Your task to perform on an android device: Open Youtube and go to "Your channel" Image 0: 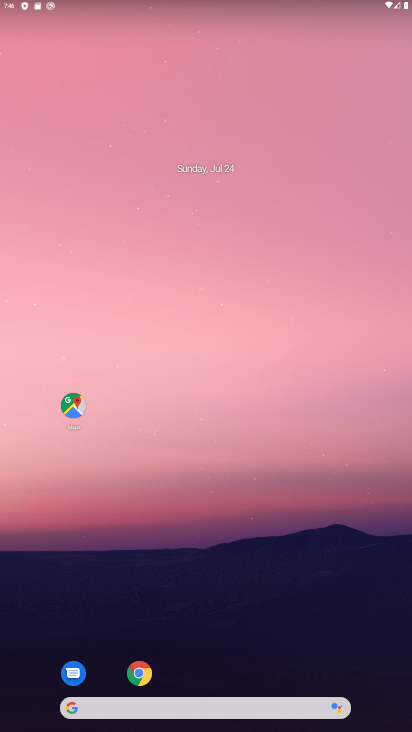
Step 0: drag from (232, 621) to (291, 2)
Your task to perform on an android device: Open Youtube and go to "Your channel" Image 1: 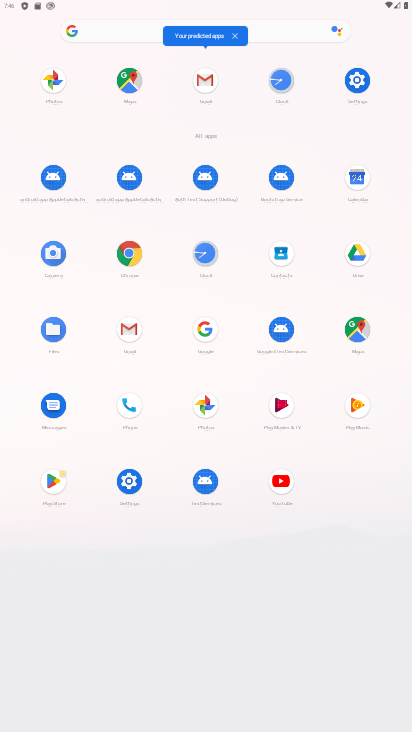
Step 1: click (285, 473)
Your task to perform on an android device: Open Youtube and go to "Your channel" Image 2: 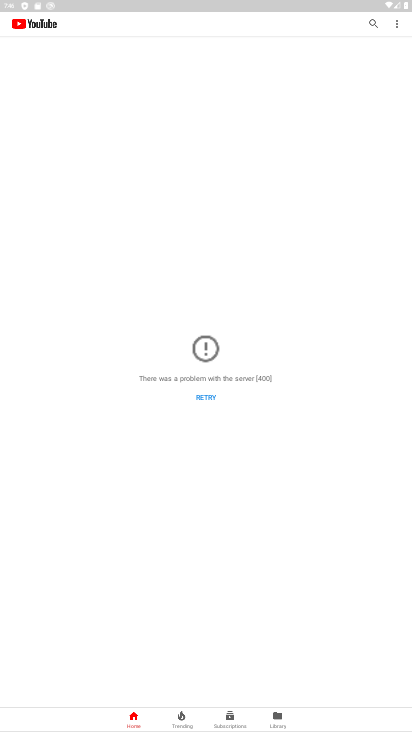
Step 2: click (208, 395)
Your task to perform on an android device: Open Youtube and go to "Your channel" Image 3: 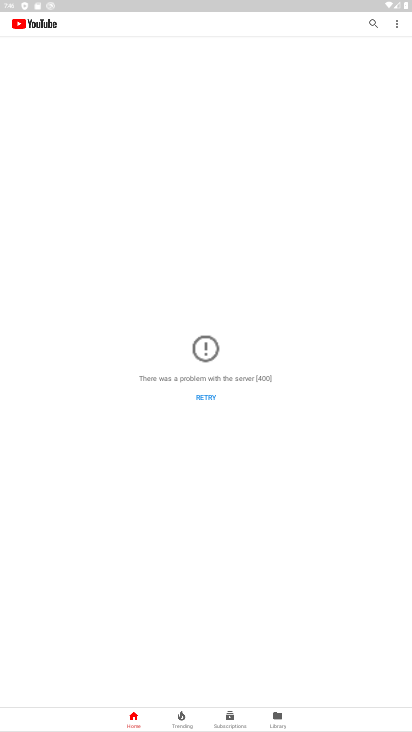
Step 3: click (208, 395)
Your task to perform on an android device: Open Youtube and go to "Your channel" Image 4: 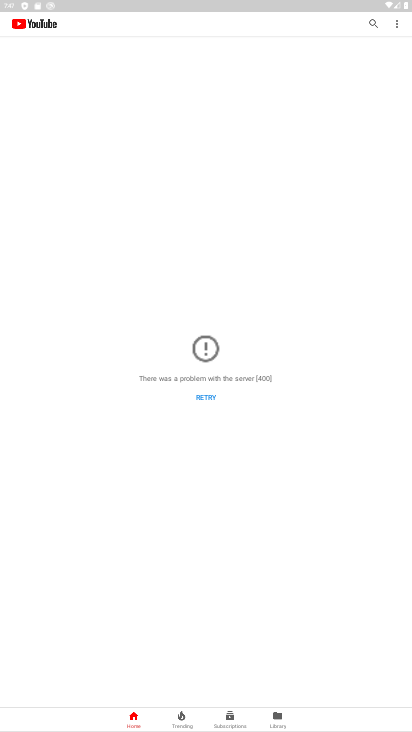
Step 4: task complete